Your task to perform on an android device: manage bookmarks in the chrome app Image 0: 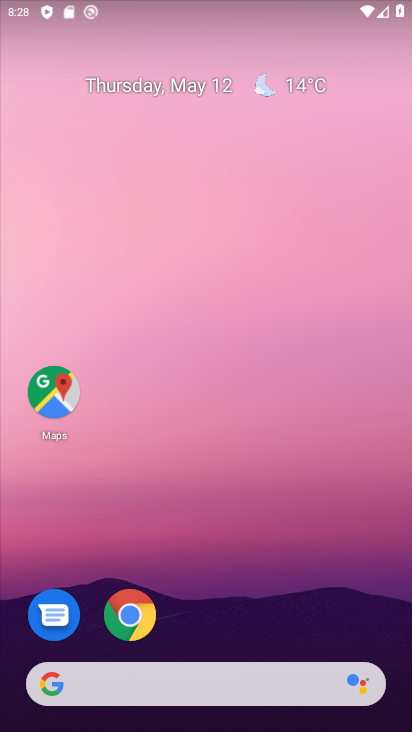
Step 0: drag from (224, 645) to (194, 8)
Your task to perform on an android device: manage bookmarks in the chrome app Image 1: 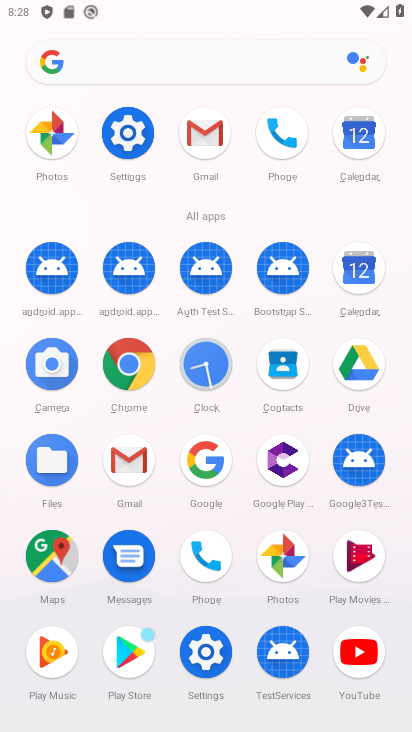
Step 1: click (117, 369)
Your task to perform on an android device: manage bookmarks in the chrome app Image 2: 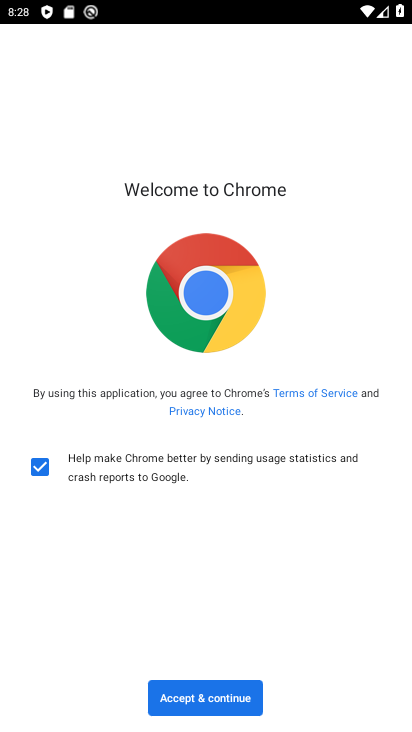
Step 2: click (183, 696)
Your task to perform on an android device: manage bookmarks in the chrome app Image 3: 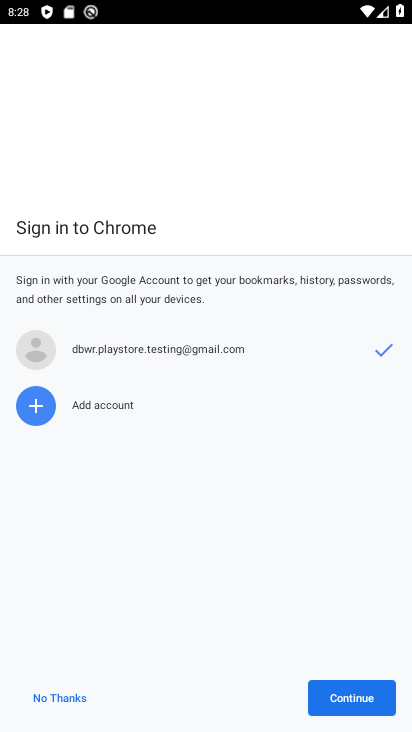
Step 3: click (350, 706)
Your task to perform on an android device: manage bookmarks in the chrome app Image 4: 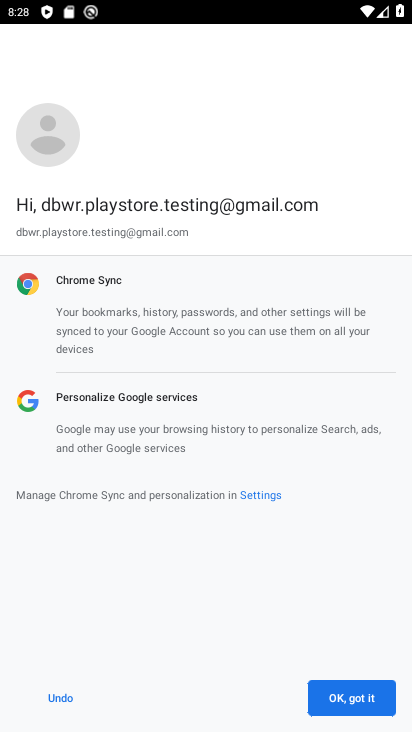
Step 4: click (351, 705)
Your task to perform on an android device: manage bookmarks in the chrome app Image 5: 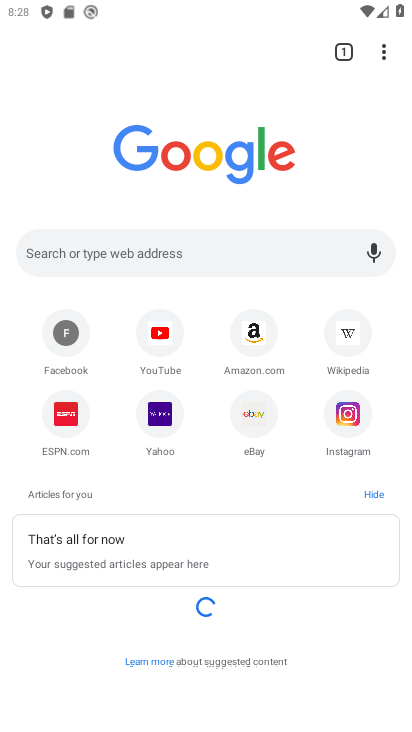
Step 5: click (378, 47)
Your task to perform on an android device: manage bookmarks in the chrome app Image 6: 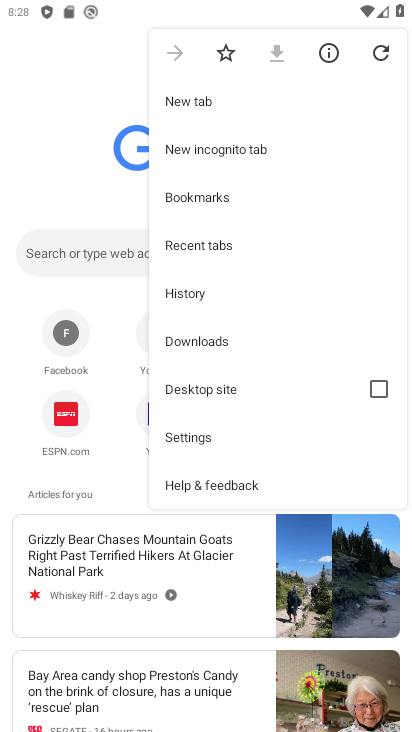
Step 6: click (192, 203)
Your task to perform on an android device: manage bookmarks in the chrome app Image 7: 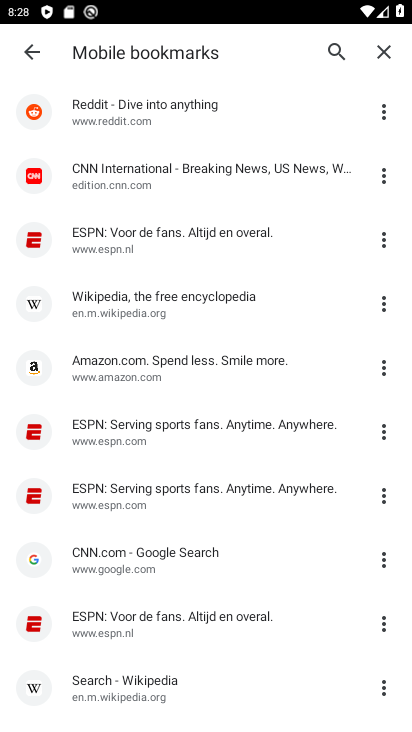
Step 7: click (378, 356)
Your task to perform on an android device: manage bookmarks in the chrome app Image 8: 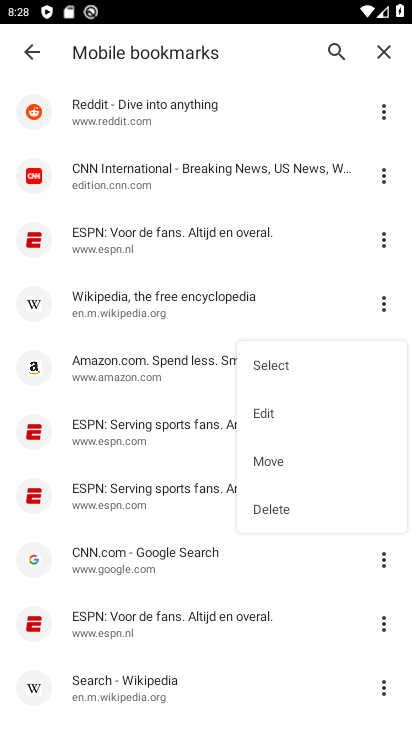
Step 8: click (274, 408)
Your task to perform on an android device: manage bookmarks in the chrome app Image 9: 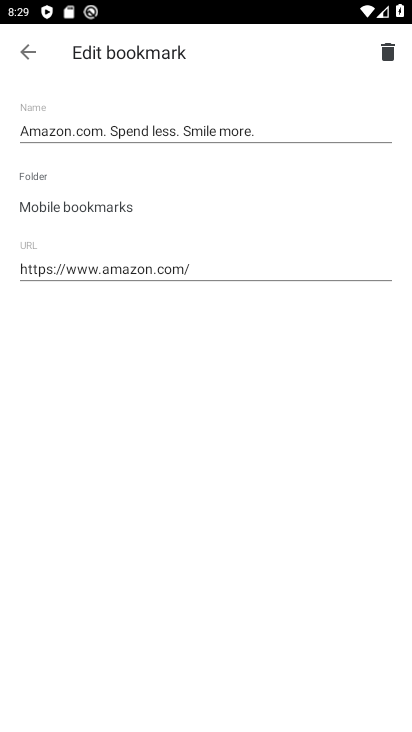
Step 9: click (391, 48)
Your task to perform on an android device: manage bookmarks in the chrome app Image 10: 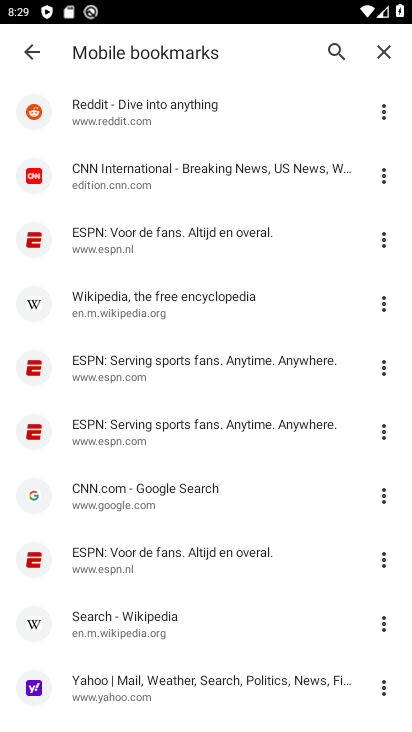
Step 10: task complete